Your task to perform on an android device: allow notifications from all sites in the chrome app Image 0: 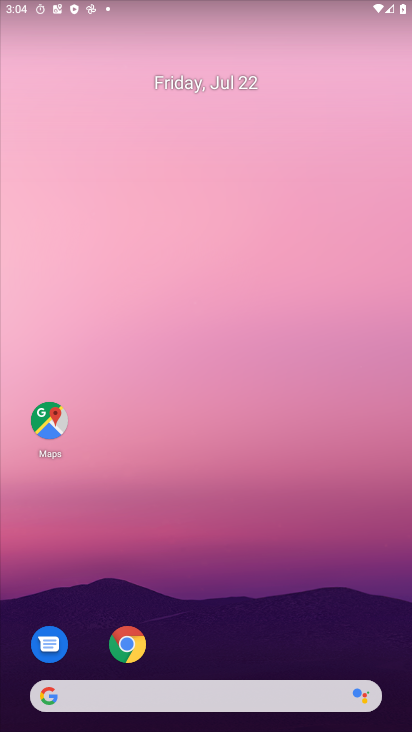
Step 0: drag from (236, 682) to (201, 171)
Your task to perform on an android device: allow notifications from all sites in the chrome app Image 1: 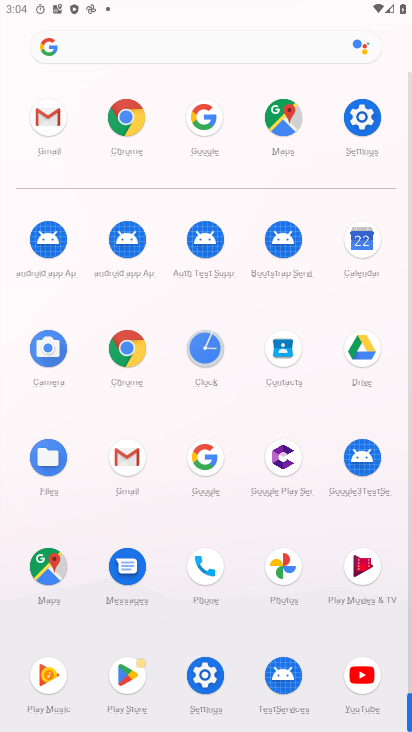
Step 1: click (124, 380)
Your task to perform on an android device: allow notifications from all sites in the chrome app Image 2: 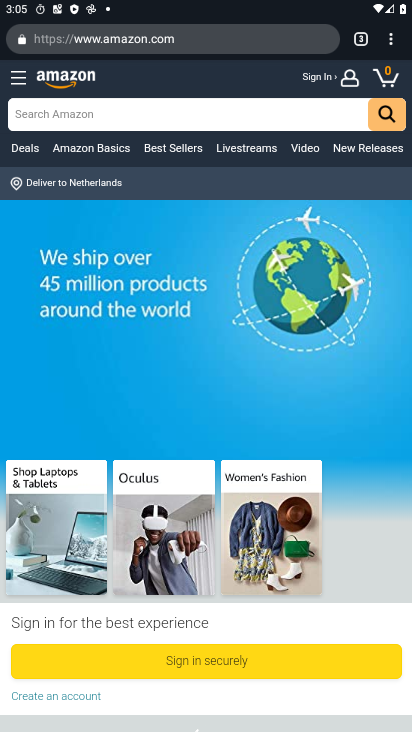
Step 2: click (396, 38)
Your task to perform on an android device: allow notifications from all sites in the chrome app Image 3: 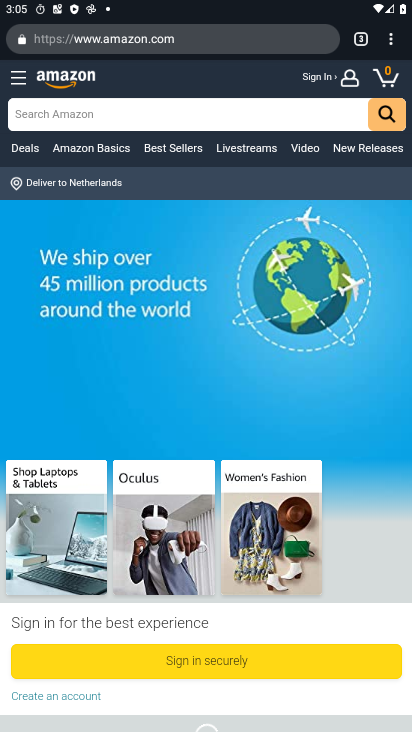
Step 3: click (394, 35)
Your task to perform on an android device: allow notifications from all sites in the chrome app Image 4: 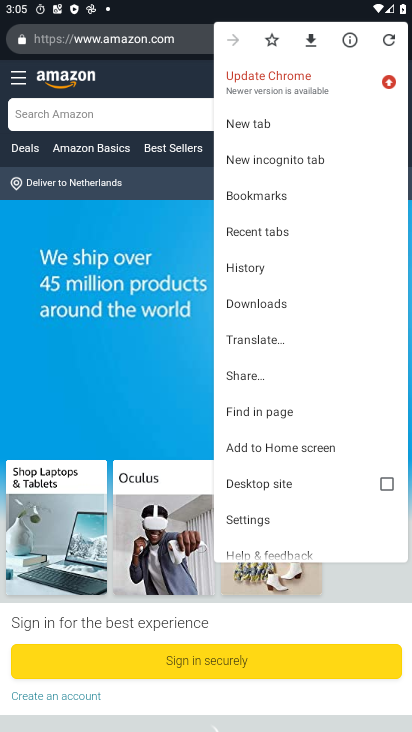
Step 4: click (259, 516)
Your task to perform on an android device: allow notifications from all sites in the chrome app Image 5: 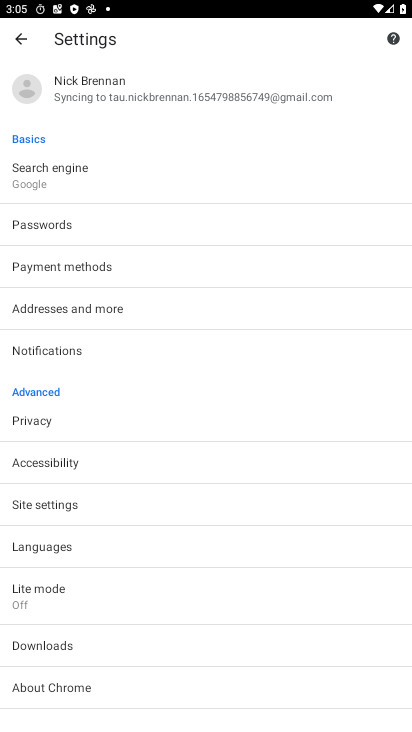
Step 5: click (22, 349)
Your task to perform on an android device: allow notifications from all sites in the chrome app Image 6: 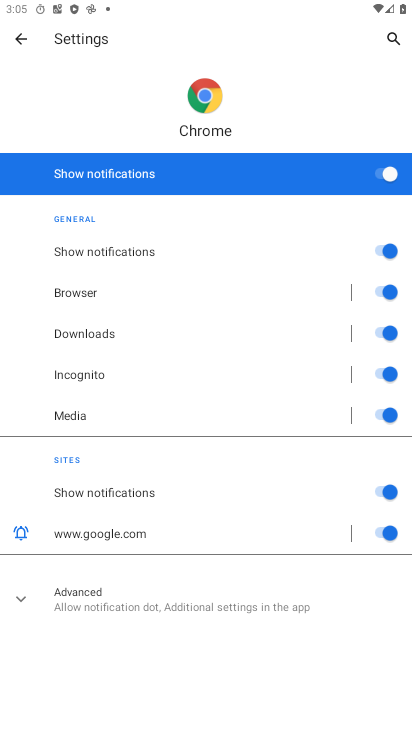
Step 6: task complete